Your task to perform on an android device: Go to Wikipedia Image 0: 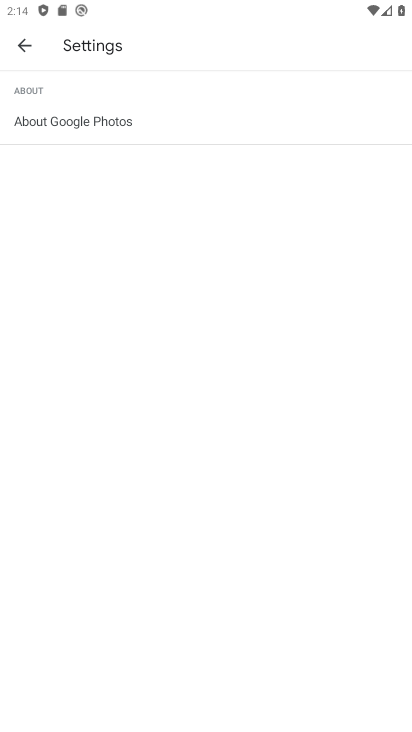
Step 0: press home button
Your task to perform on an android device: Go to Wikipedia Image 1: 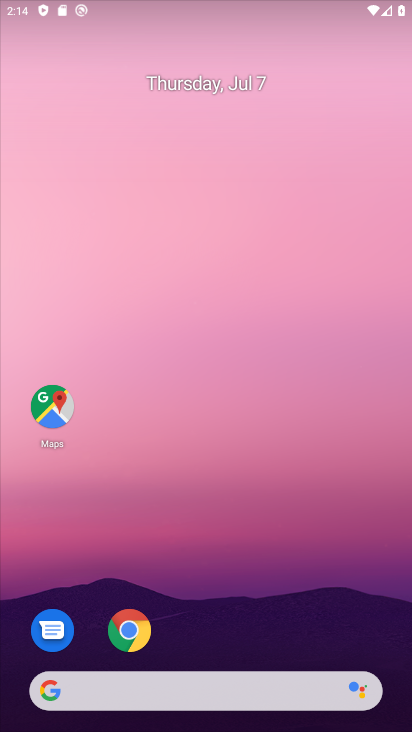
Step 1: drag from (297, 613) to (279, 264)
Your task to perform on an android device: Go to Wikipedia Image 2: 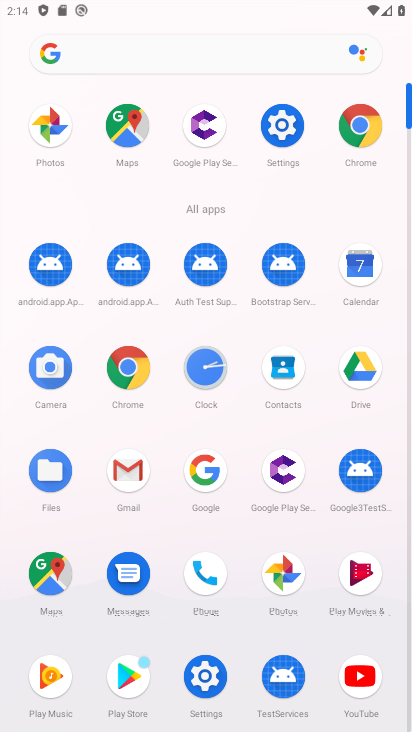
Step 2: click (359, 121)
Your task to perform on an android device: Go to Wikipedia Image 3: 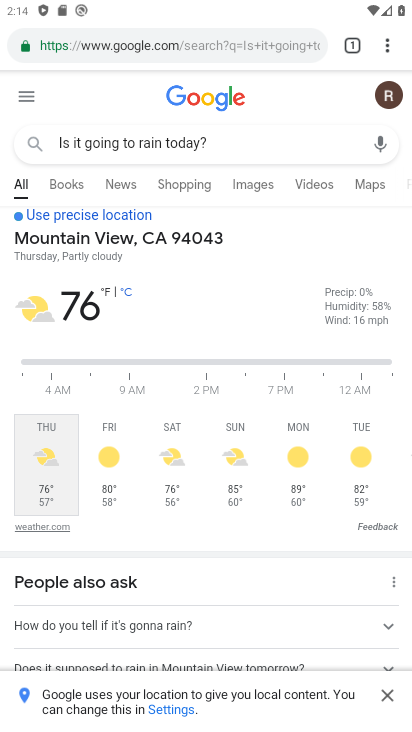
Step 3: click (383, 41)
Your task to perform on an android device: Go to Wikipedia Image 4: 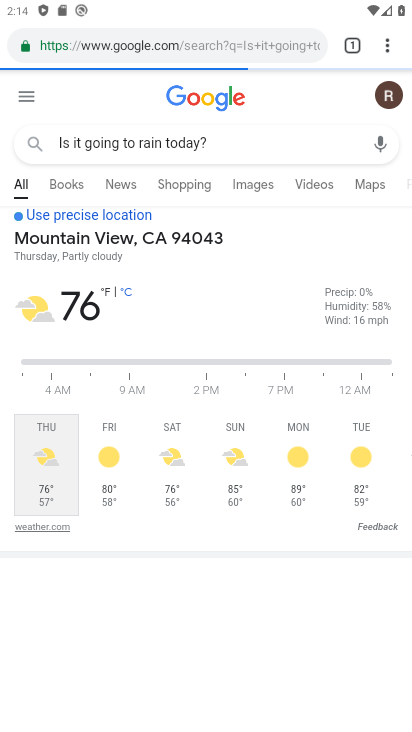
Step 4: click (383, 41)
Your task to perform on an android device: Go to Wikipedia Image 5: 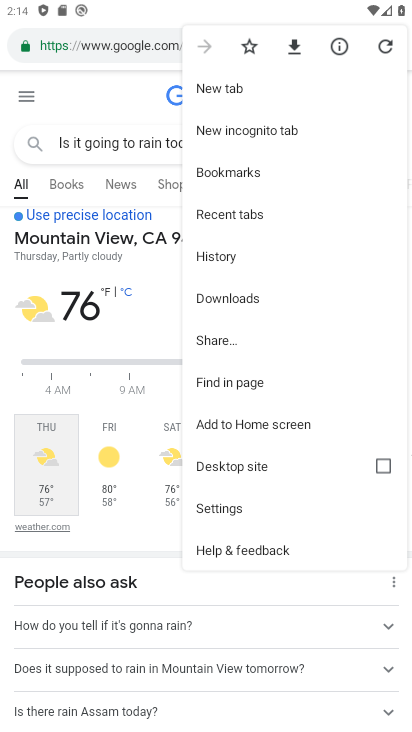
Step 5: click (231, 89)
Your task to perform on an android device: Go to Wikipedia Image 6: 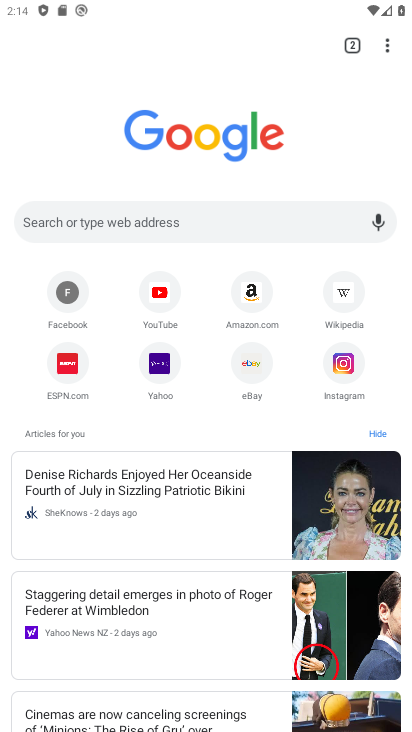
Step 6: click (345, 297)
Your task to perform on an android device: Go to Wikipedia Image 7: 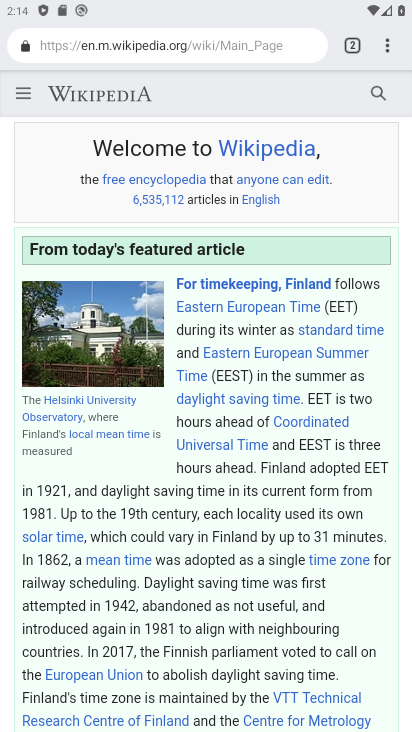
Step 7: task complete